Your task to perform on an android device: change notifications settings Image 0: 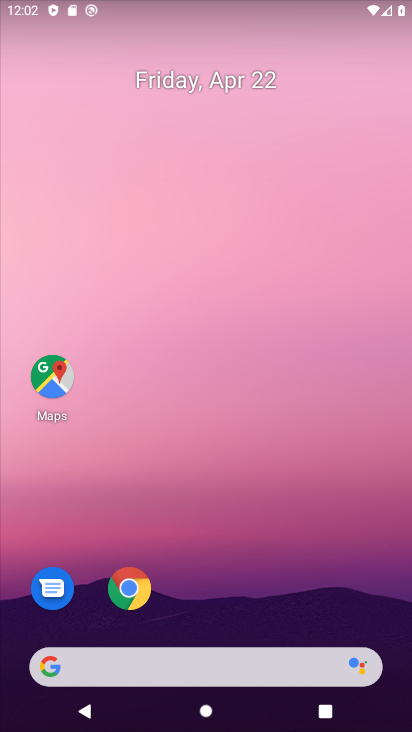
Step 0: drag from (265, 590) to (253, 59)
Your task to perform on an android device: change notifications settings Image 1: 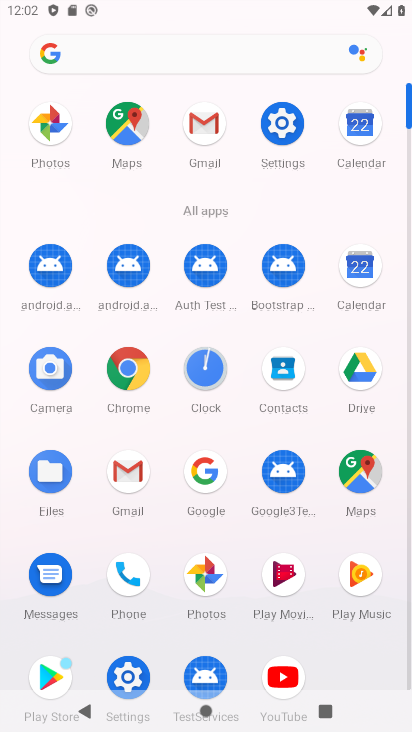
Step 1: click (280, 139)
Your task to perform on an android device: change notifications settings Image 2: 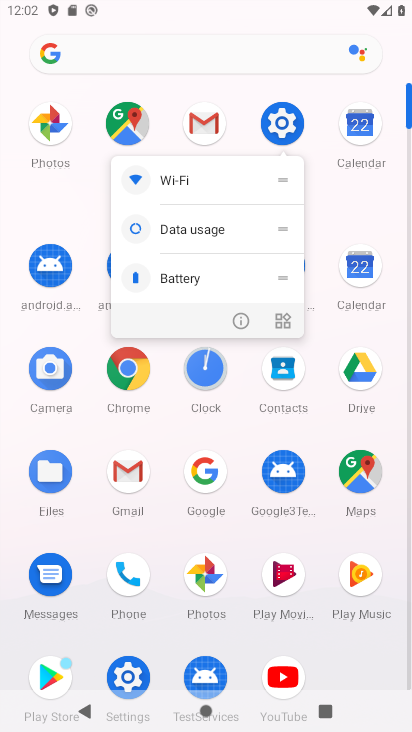
Step 2: click (280, 139)
Your task to perform on an android device: change notifications settings Image 3: 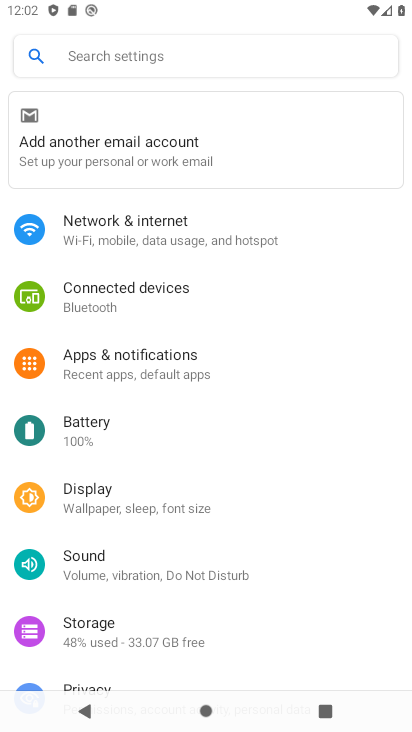
Step 3: click (159, 364)
Your task to perform on an android device: change notifications settings Image 4: 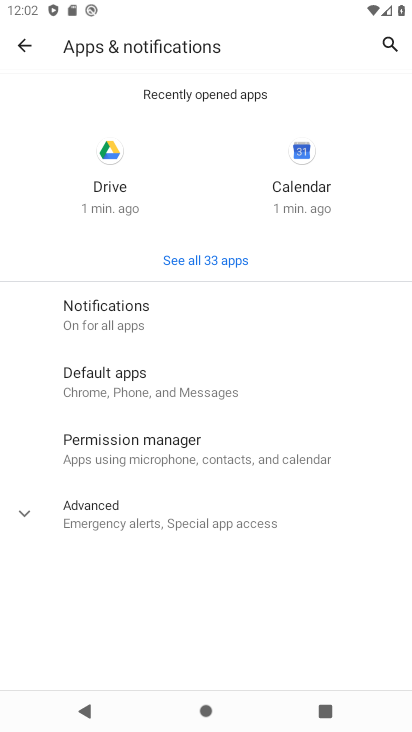
Step 4: click (146, 316)
Your task to perform on an android device: change notifications settings Image 5: 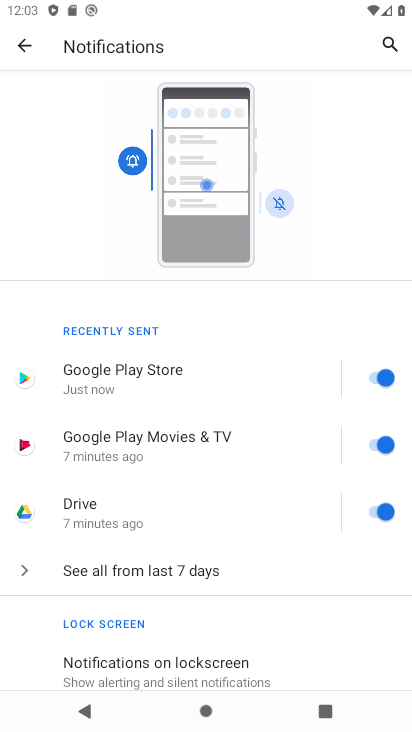
Step 5: click (162, 567)
Your task to perform on an android device: change notifications settings Image 6: 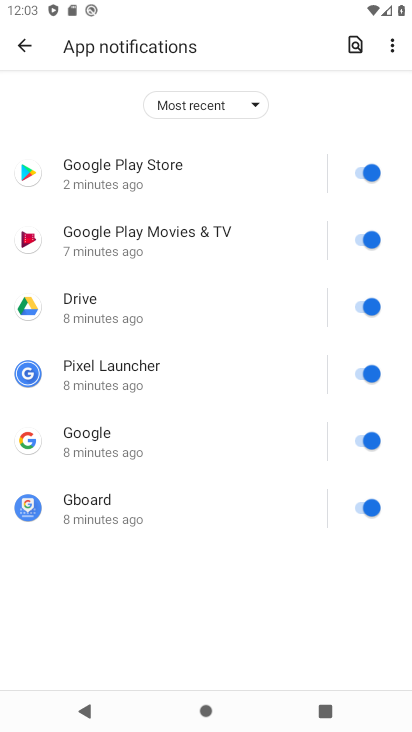
Step 6: click (366, 189)
Your task to perform on an android device: change notifications settings Image 7: 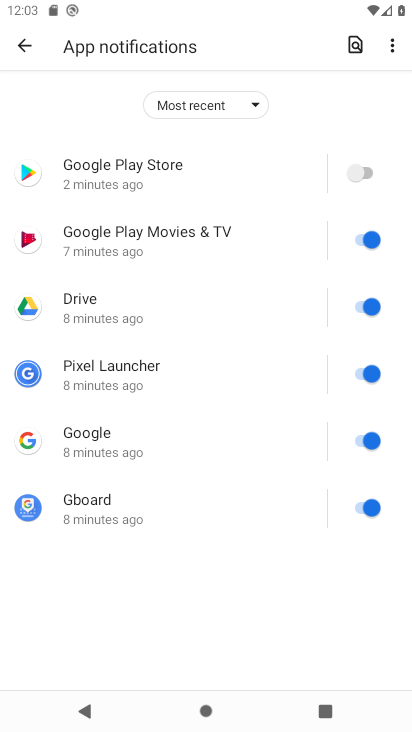
Step 7: click (364, 226)
Your task to perform on an android device: change notifications settings Image 8: 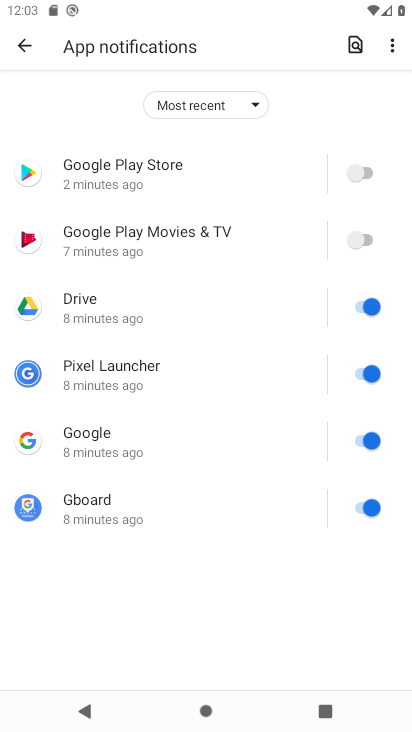
Step 8: click (364, 314)
Your task to perform on an android device: change notifications settings Image 9: 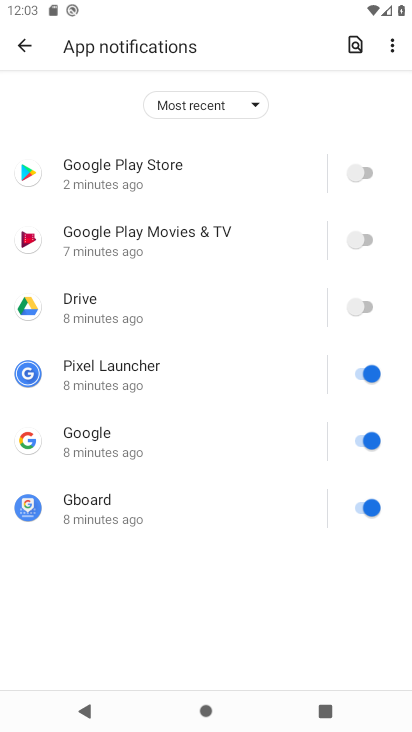
Step 9: click (367, 367)
Your task to perform on an android device: change notifications settings Image 10: 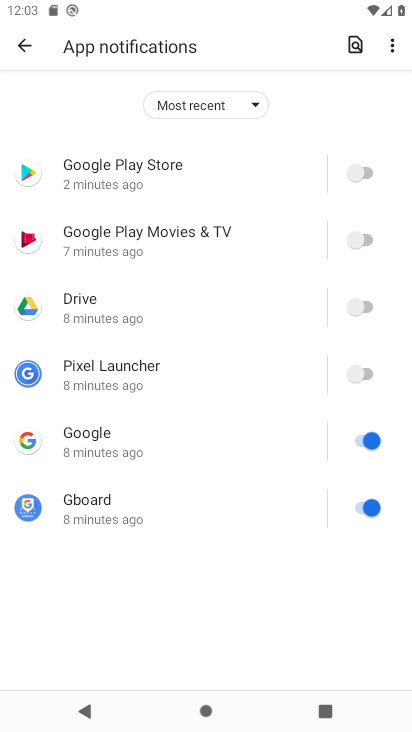
Step 10: click (368, 437)
Your task to perform on an android device: change notifications settings Image 11: 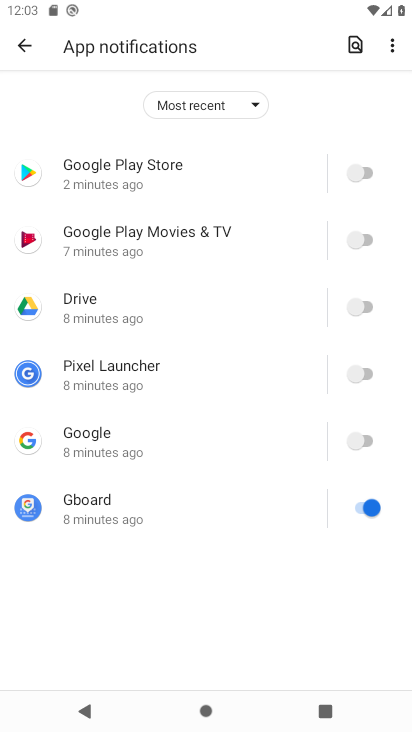
Step 11: click (358, 499)
Your task to perform on an android device: change notifications settings Image 12: 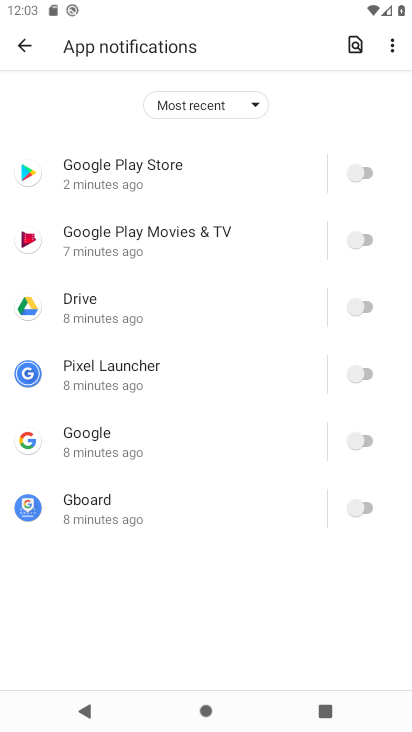
Step 12: click (28, 52)
Your task to perform on an android device: change notifications settings Image 13: 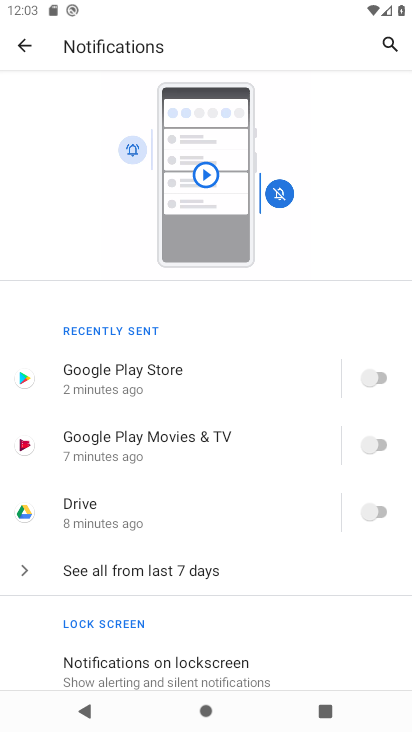
Step 13: drag from (129, 576) to (144, 243)
Your task to perform on an android device: change notifications settings Image 14: 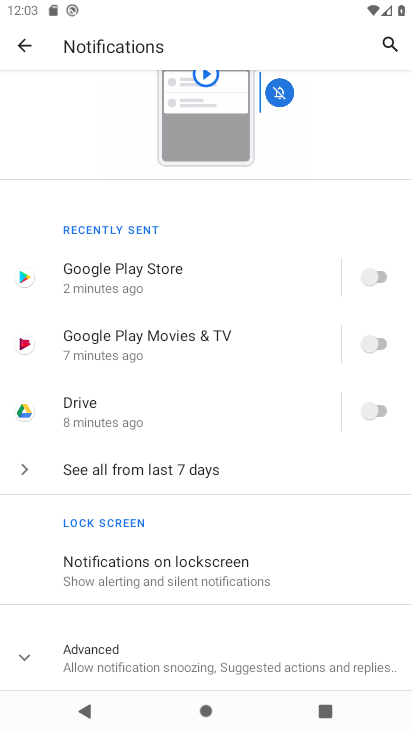
Step 14: click (132, 569)
Your task to perform on an android device: change notifications settings Image 15: 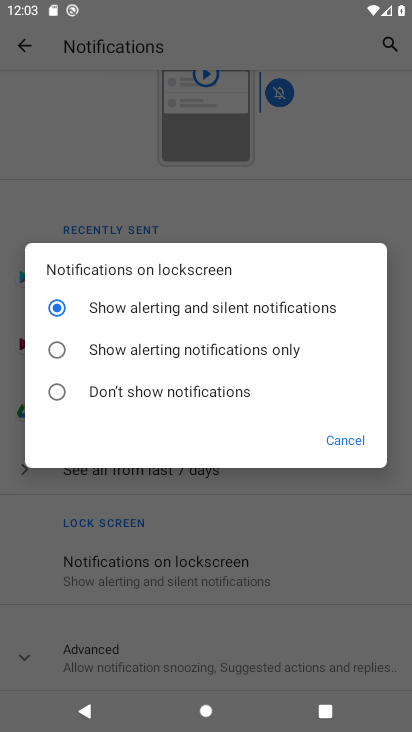
Step 15: click (107, 351)
Your task to perform on an android device: change notifications settings Image 16: 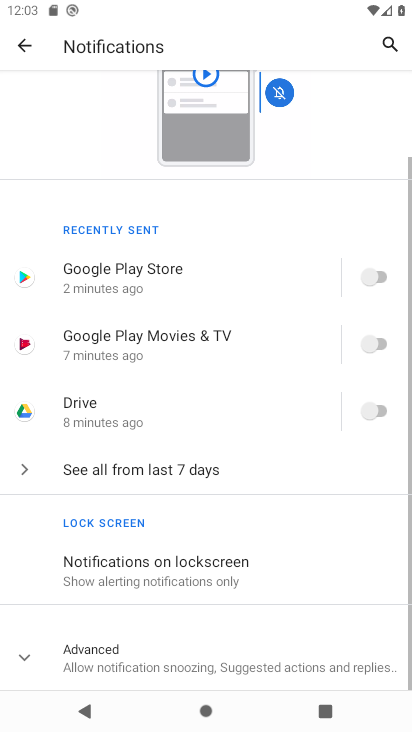
Step 16: click (141, 637)
Your task to perform on an android device: change notifications settings Image 17: 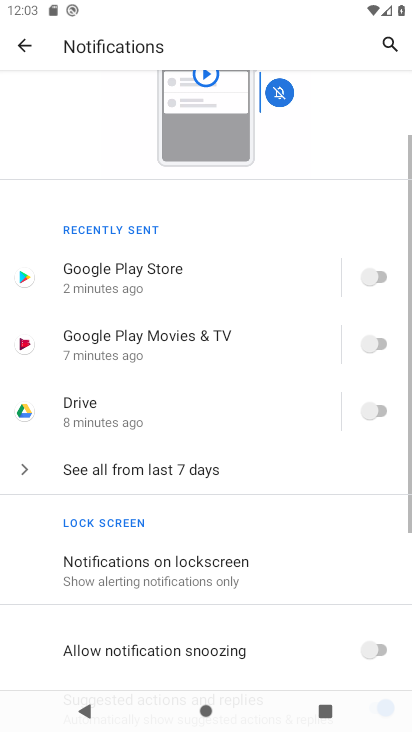
Step 17: drag from (155, 596) to (244, 139)
Your task to perform on an android device: change notifications settings Image 18: 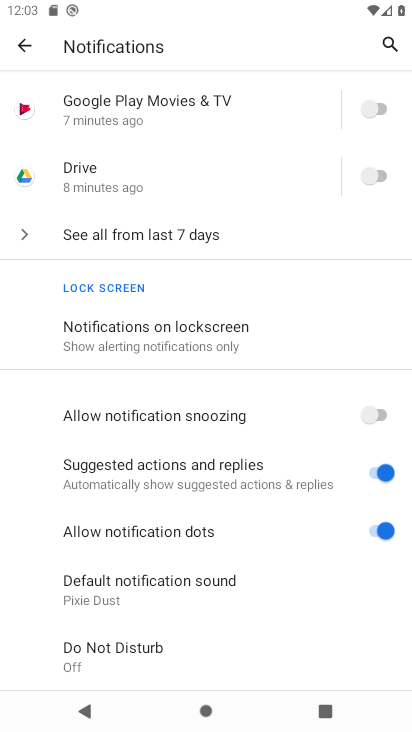
Step 18: click (375, 416)
Your task to perform on an android device: change notifications settings Image 19: 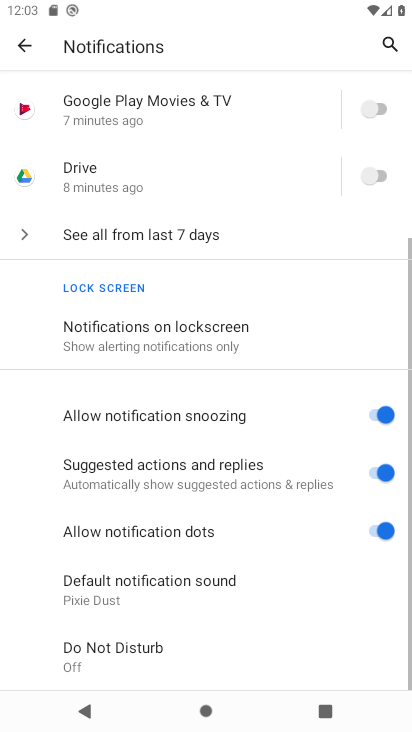
Step 19: click (380, 467)
Your task to perform on an android device: change notifications settings Image 20: 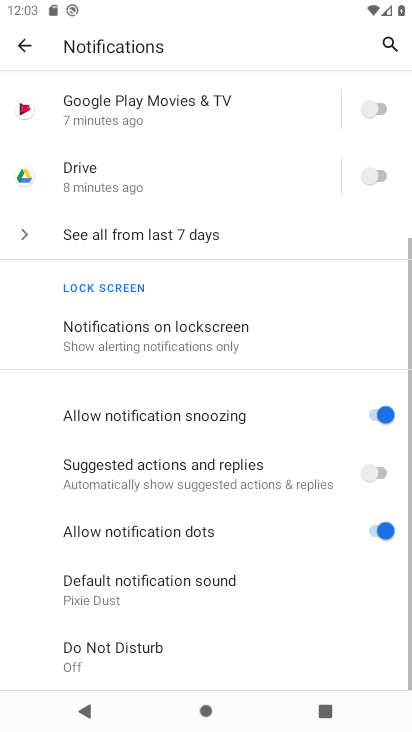
Step 20: click (375, 523)
Your task to perform on an android device: change notifications settings Image 21: 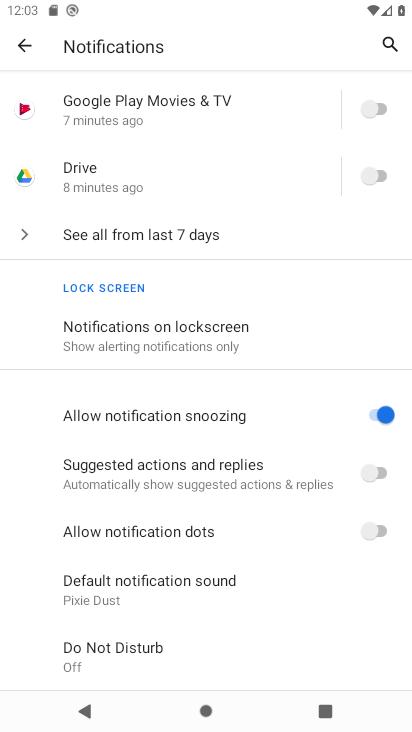
Step 21: task complete